Your task to perform on an android device: Open calendar and show me the fourth week of next month Image 0: 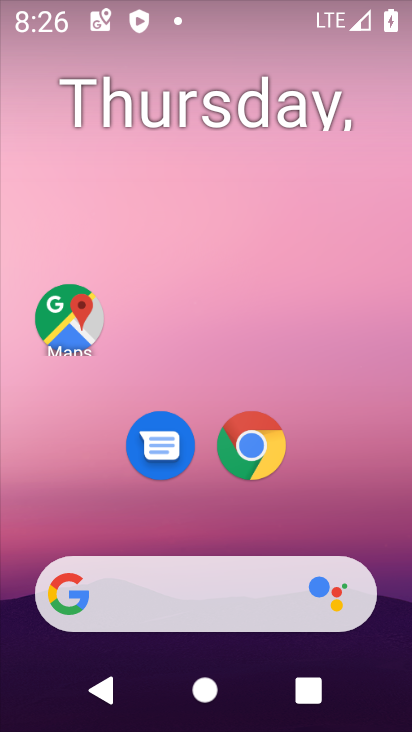
Step 0: drag from (397, 628) to (354, 109)
Your task to perform on an android device: Open calendar and show me the fourth week of next month Image 1: 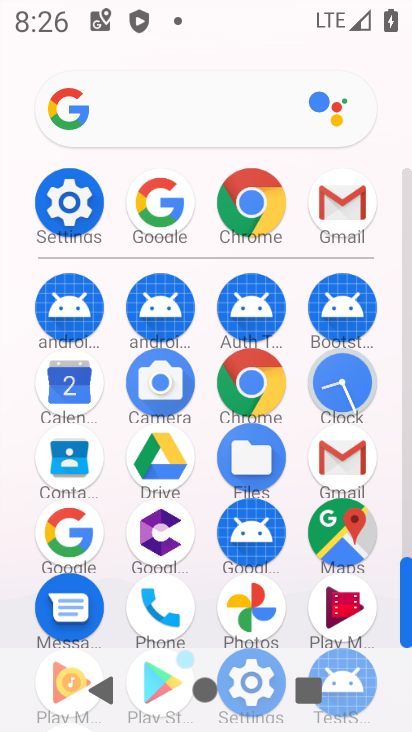
Step 1: click (74, 383)
Your task to perform on an android device: Open calendar and show me the fourth week of next month Image 2: 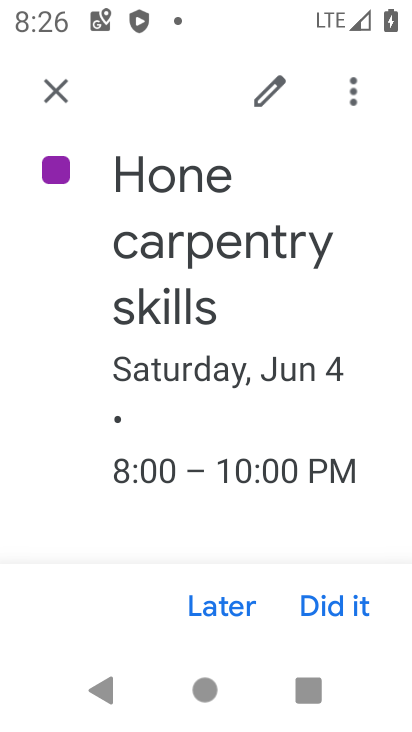
Step 2: press back button
Your task to perform on an android device: Open calendar and show me the fourth week of next month Image 3: 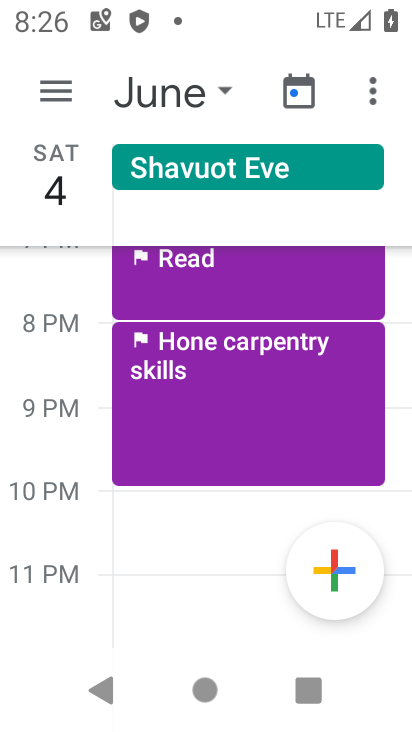
Step 3: click (150, 95)
Your task to perform on an android device: Open calendar and show me the fourth week of next month Image 4: 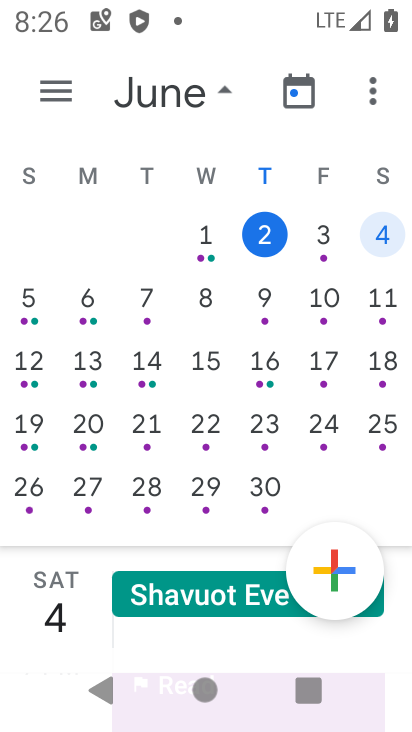
Step 4: drag from (370, 342) to (35, 352)
Your task to perform on an android device: Open calendar and show me the fourth week of next month Image 5: 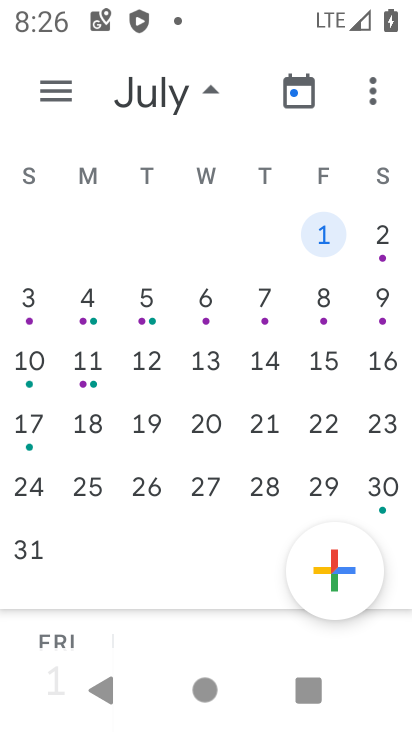
Step 5: click (382, 489)
Your task to perform on an android device: Open calendar and show me the fourth week of next month Image 6: 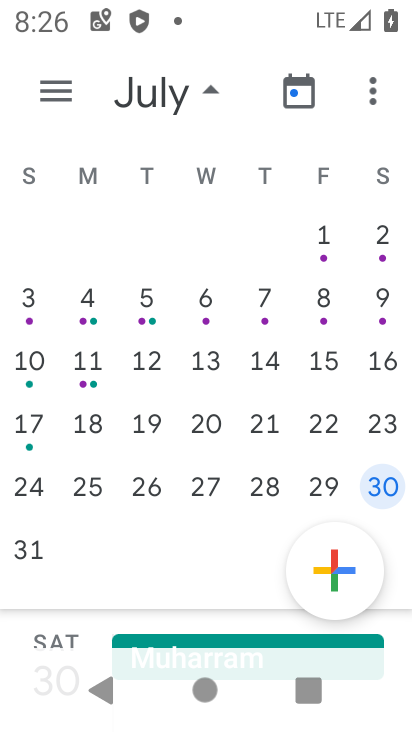
Step 6: task complete